Your task to perform on an android device: Open maps Image 0: 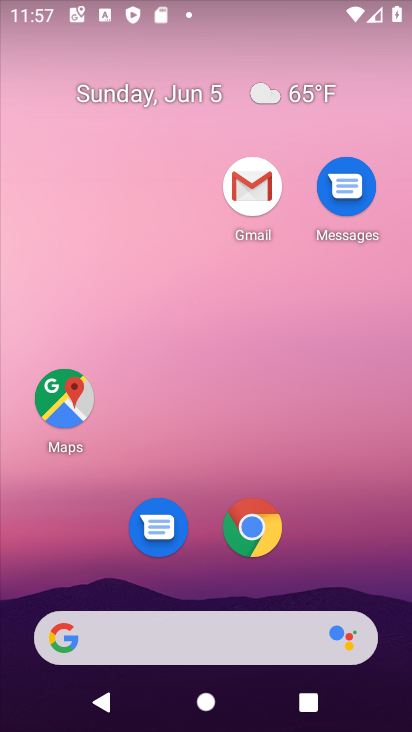
Step 0: click (52, 388)
Your task to perform on an android device: Open maps Image 1: 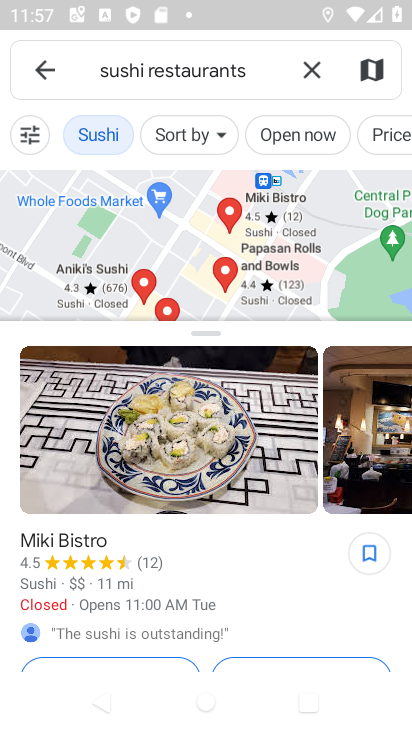
Step 1: task complete